Your task to perform on an android device: add a contact in the contacts app Image 0: 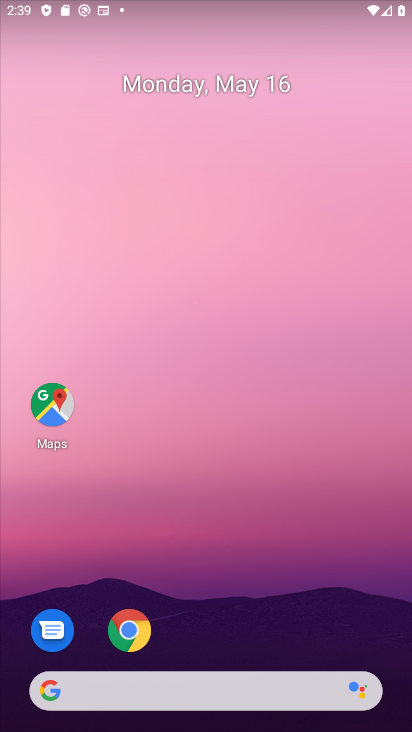
Step 0: drag from (229, 645) to (407, 729)
Your task to perform on an android device: add a contact in the contacts app Image 1: 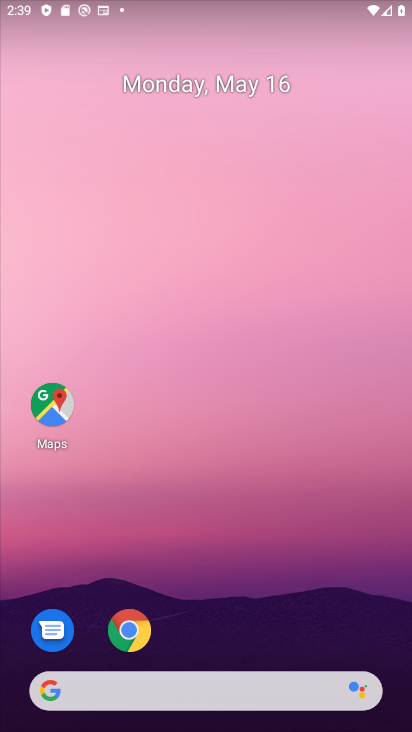
Step 1: drag from (210, 645) to (272, 189)
Your task to perform on an android device: add a contact in the contacts app Image 2: 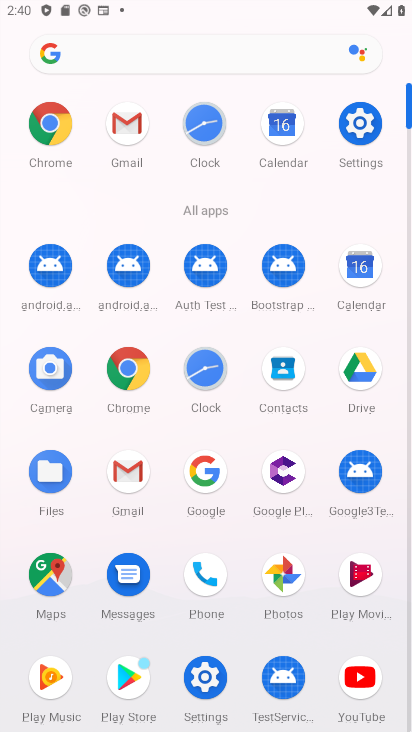
Step 2: click (281, 366)
Your task to perform on an android device: add a contact in the contacts app Image 3: 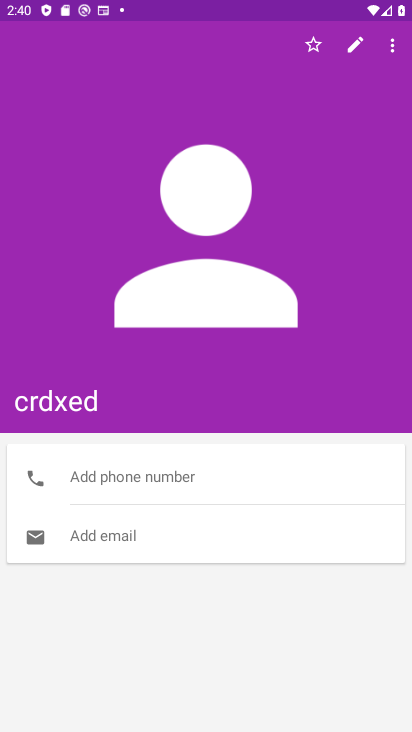
Step 3: task complete